Your task to perform on an android device: toggle translation in the chrome app Image 0: 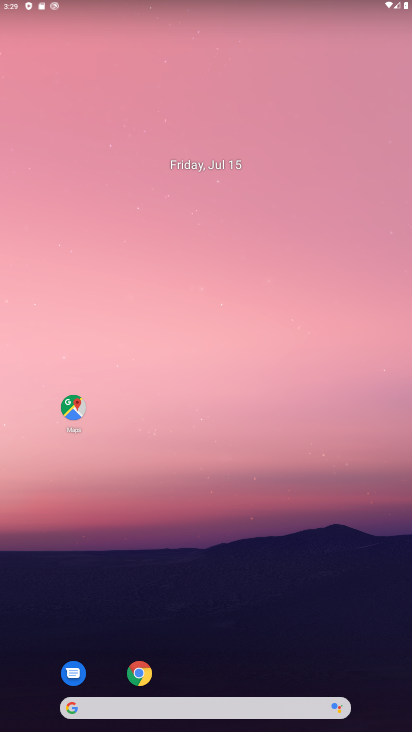
Step 0: click (147, 674)
Your task to perform on an android device: toggle translation in the chrome app Image 1: 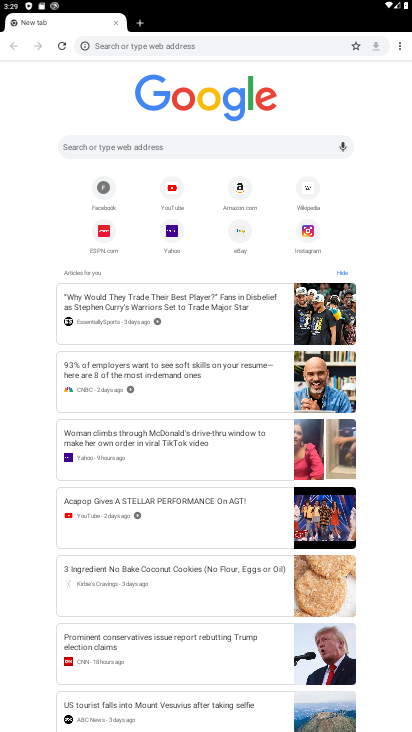
Step 1: drag from (409, 45) to (333, 216)
Your task to perform on an android device: toggle translation in the chrome app Image 2: 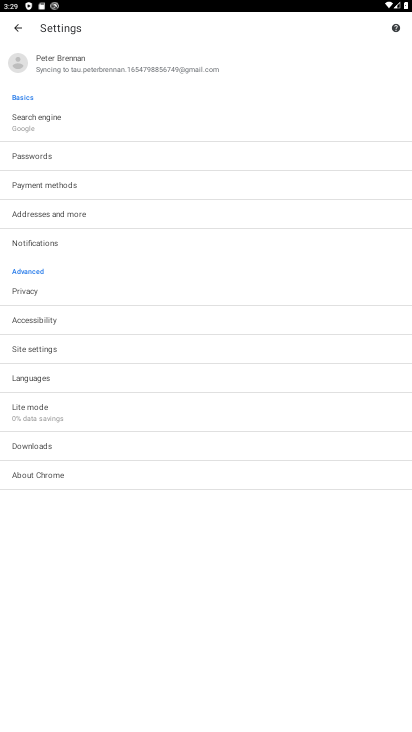
Step 2: click (63, 381)
Your task to perform on an android device: toggle translation in the chrome app Image 3: 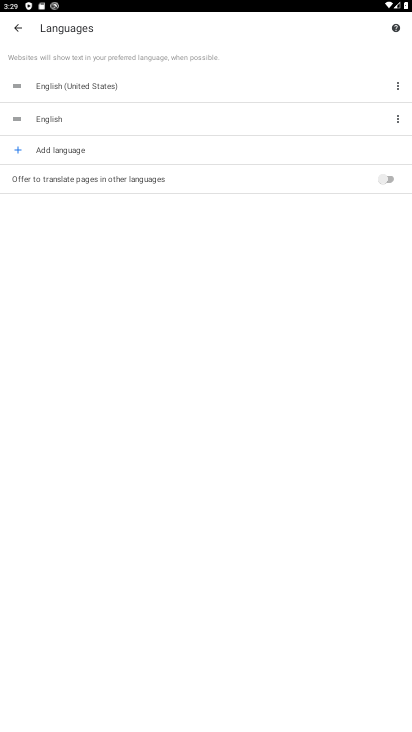
Step 3: click (396, 175)
Your task to perform on an android device: toggle translation in the chrome app Image 4: 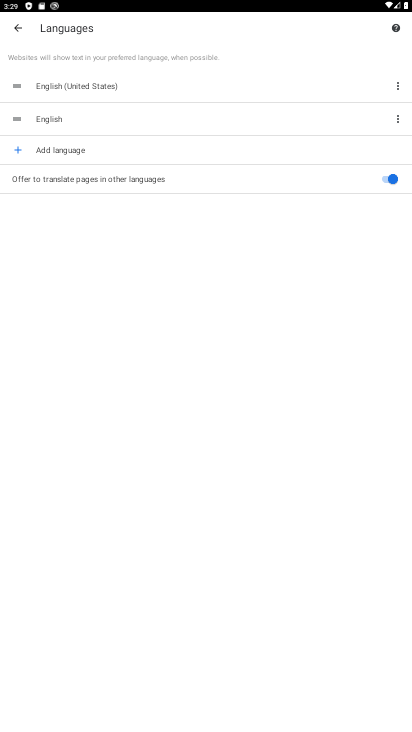
Step 4: task complete